Your task to perform on an android device: open a new tab in the chrome app Image 0: 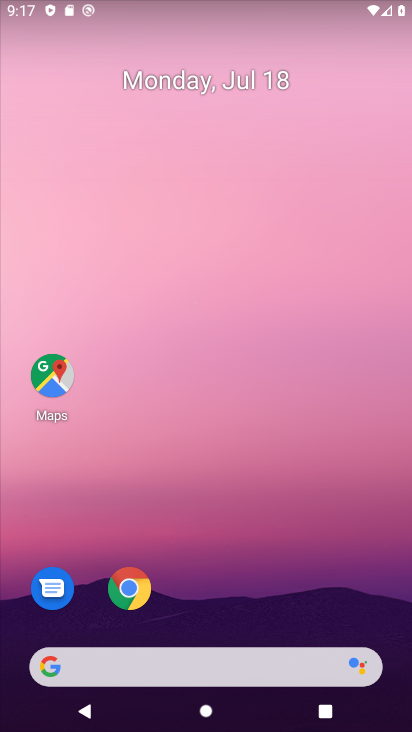
Step 0: click (114, 590)
Your task to perform on an android device: open a new tab in the chrome app Image 1: 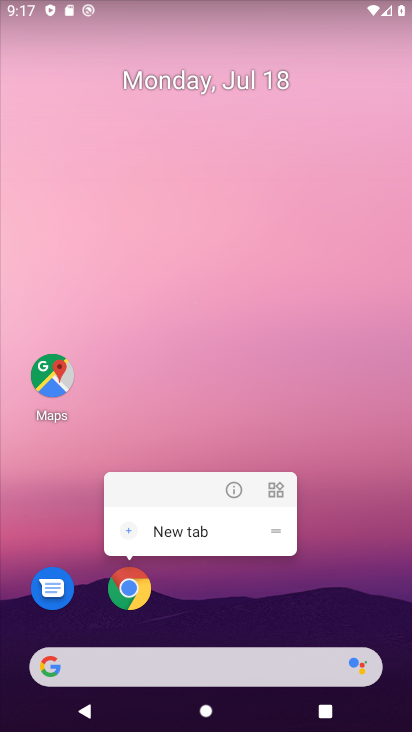
Step 1: click (132, 591)
Your task to perform on an android device: open a new tab in the chrome app Image 2: 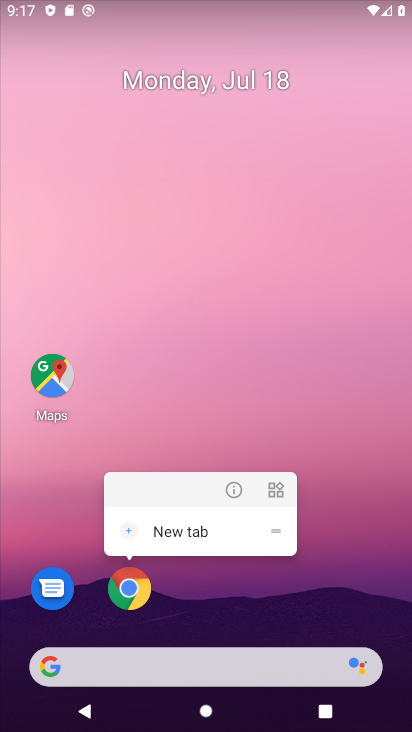
Step 2: click (129, 592)
Your task to perform on an android device: open a new tab in the chrome app Image 3: 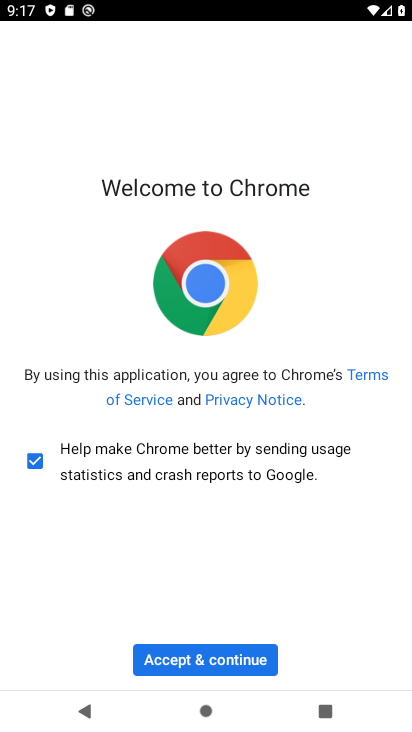
Step 3: click (259, 671)
Your task to perform on an android device: open a new tab in the chrome app Image 4: 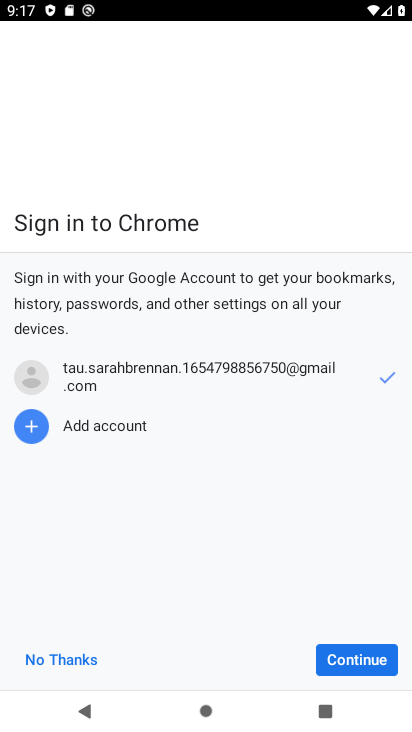
Step 4: click (346, 653)
Your task to perform on an android device: open a new tab in the chrome app Image 5: 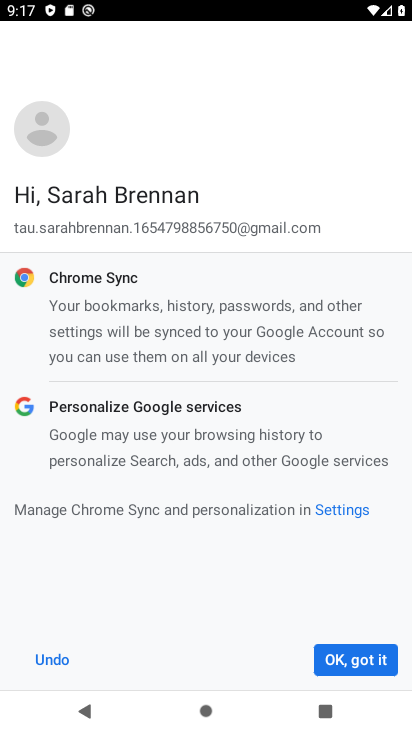
Step 5: click (377, 658)
Your task to perform on an android device: open a new tab in the chrome app Image 6: 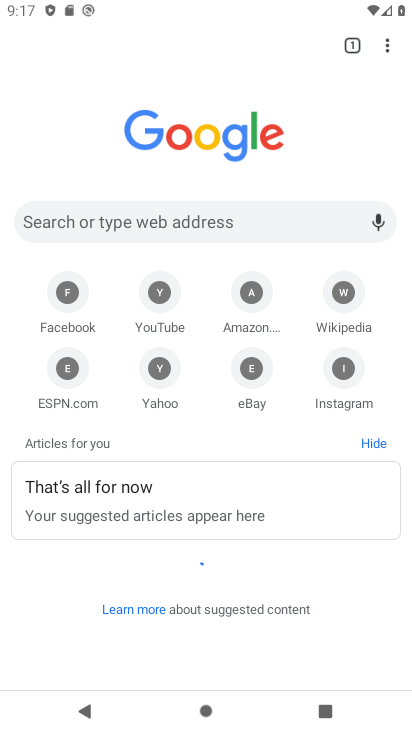
Step 6: task complete